Your task to perform on an android device: set an alarm Image 0: 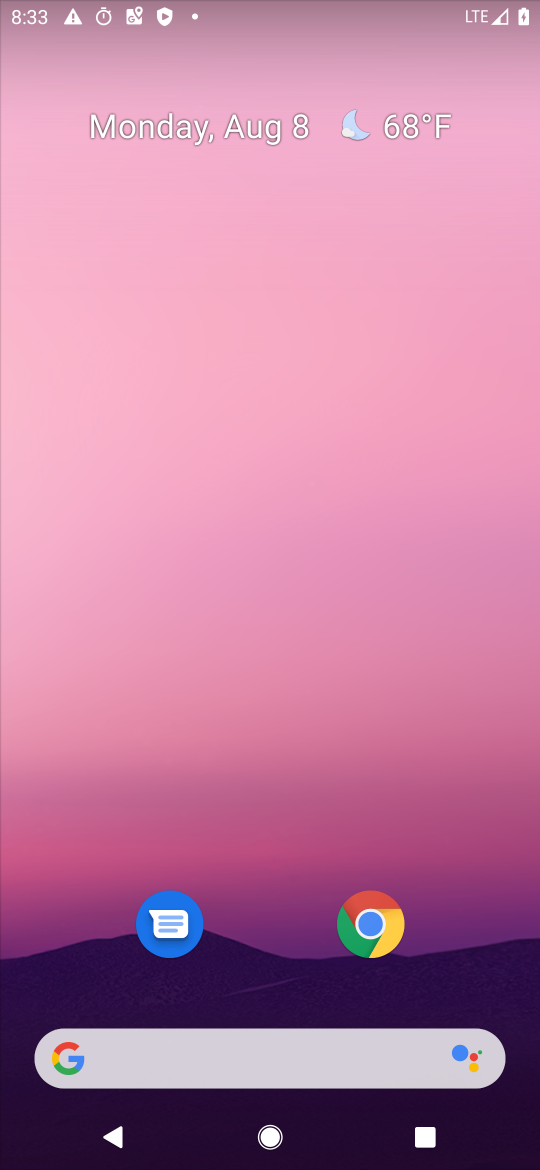
Step 0: drag from (279, 656) to (207, 99)
Your task to perform on an android device: set an alarm Image 1: 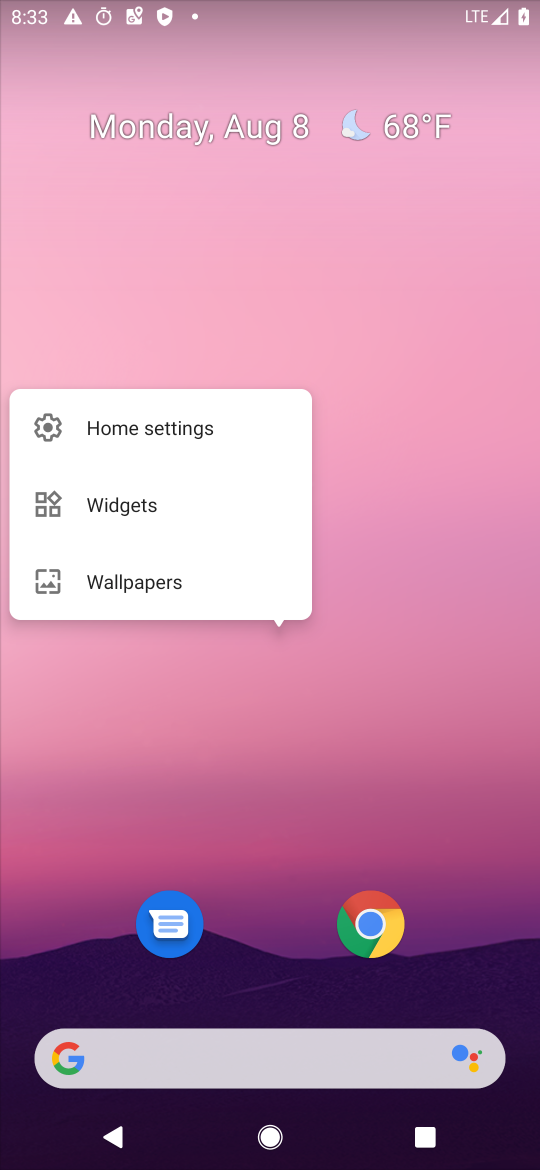
Step 1: click (282, 972)
Your task to perform on an android device: set an alarm Image 2: 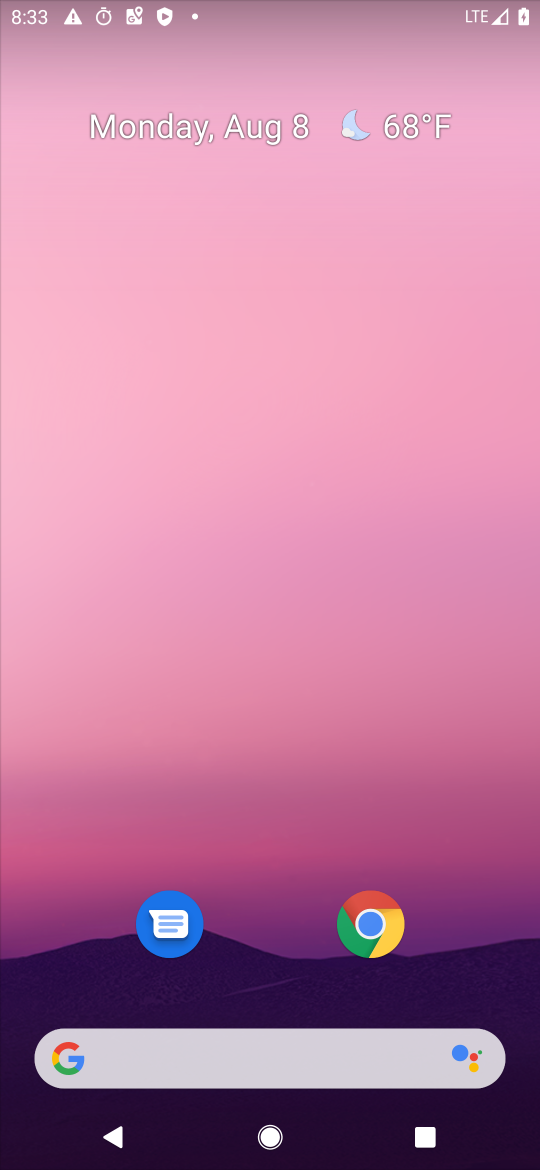
Step 2: drag from (309, 930) to (322, 257)
Your task to perform on an android device: set an alarm Image 3: 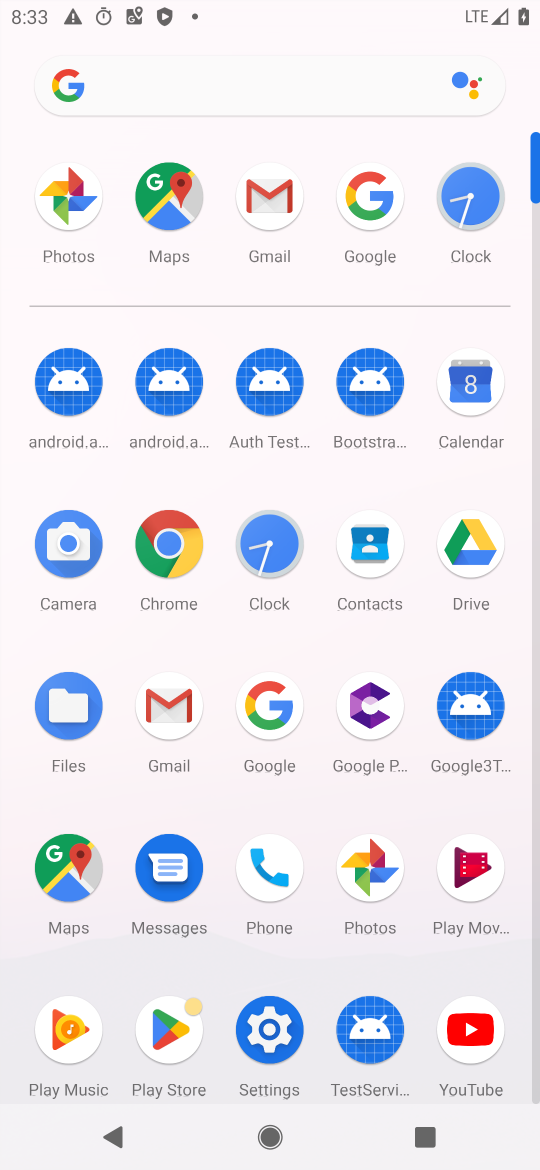
Step 3: click (265, 551)
Your task to perform on an android device: set an alarm Image 4: 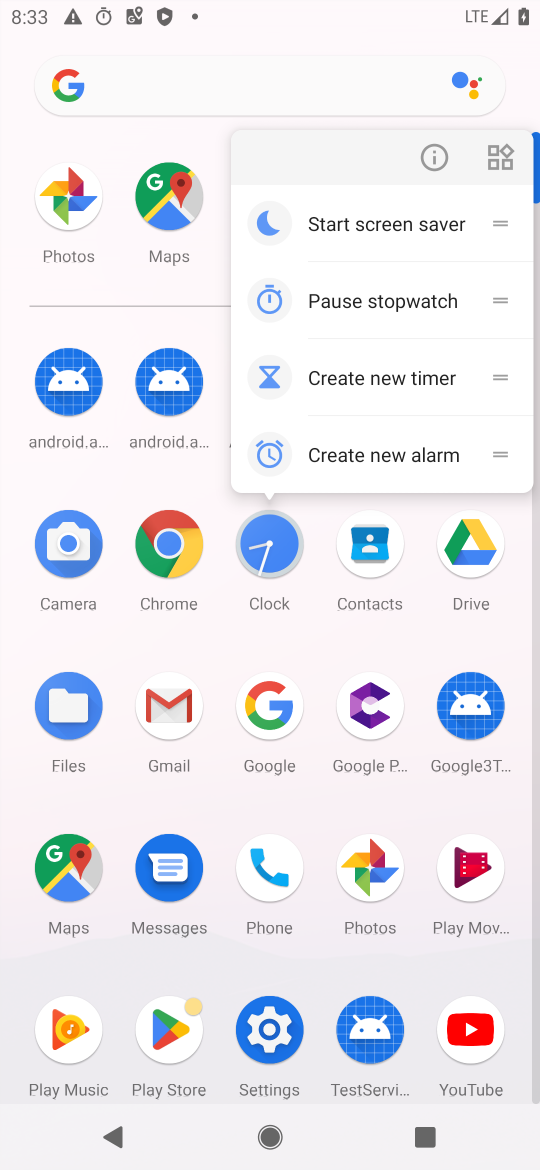
Step 4: click (435, 137)
Your task to perform on an android device: set an alarm Image 5: 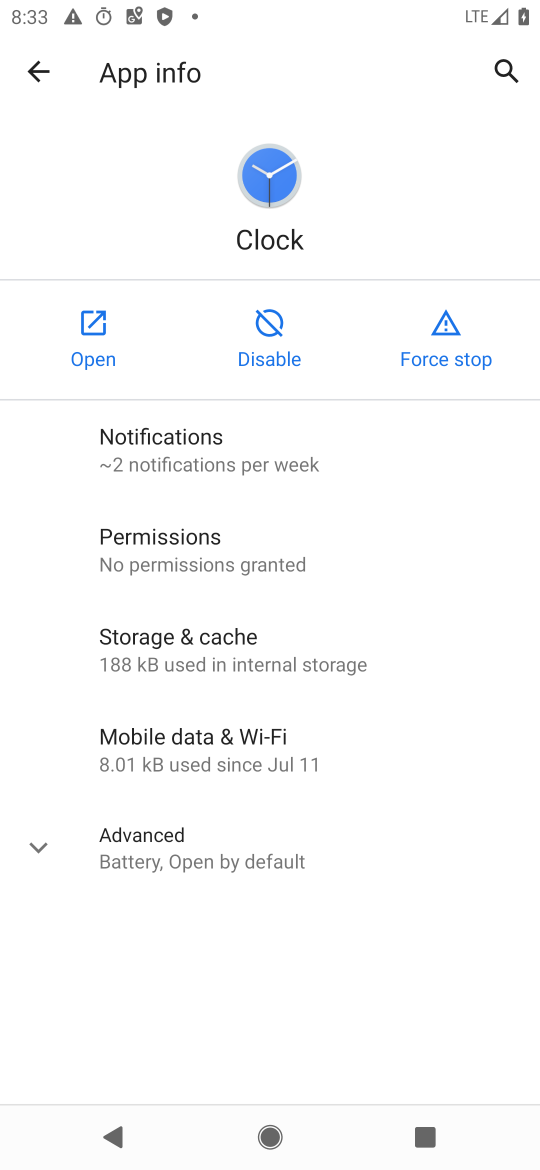
Step 5: click (109, 342)
Your task to perform on an android device: set an alarm Image 6: 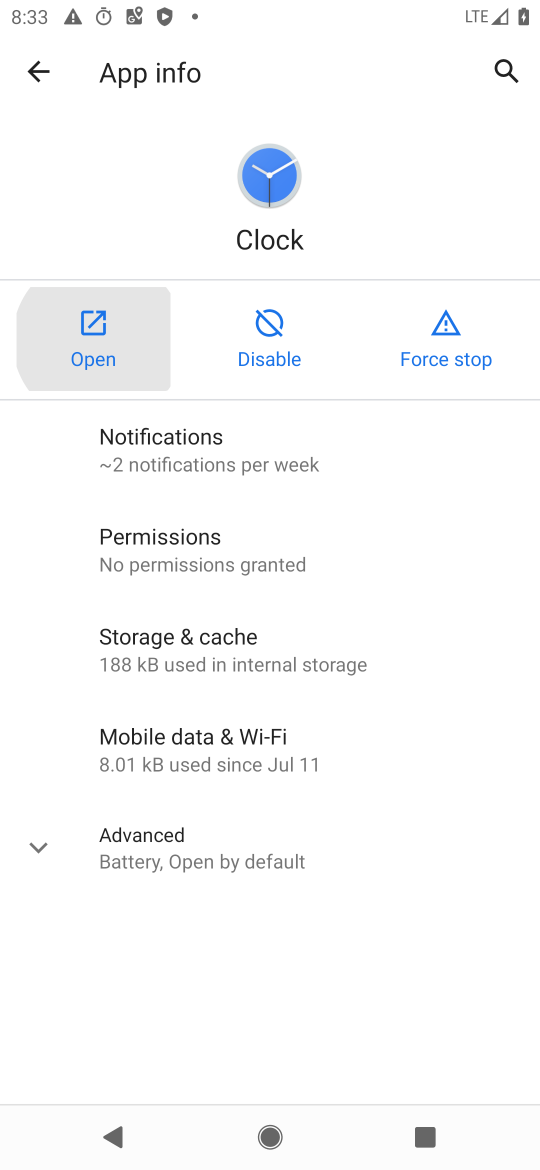
Step 6: click (109, 342)
Your task to perform on an android device: set an alarm Image 7: 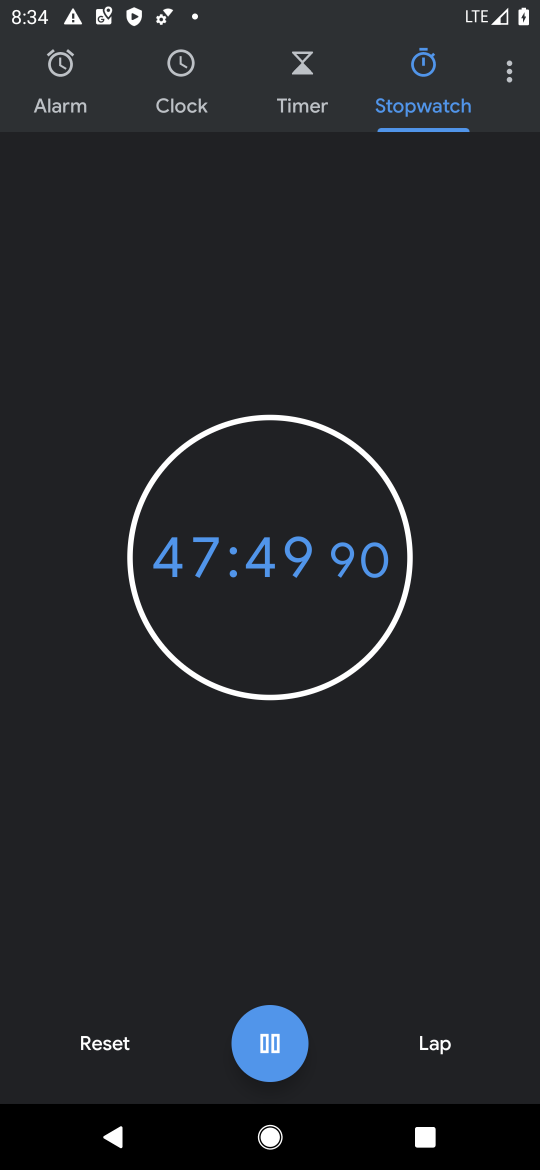
Step 7: click (53, 87)
Your task to perform on an android device: set an alarm Image 8: 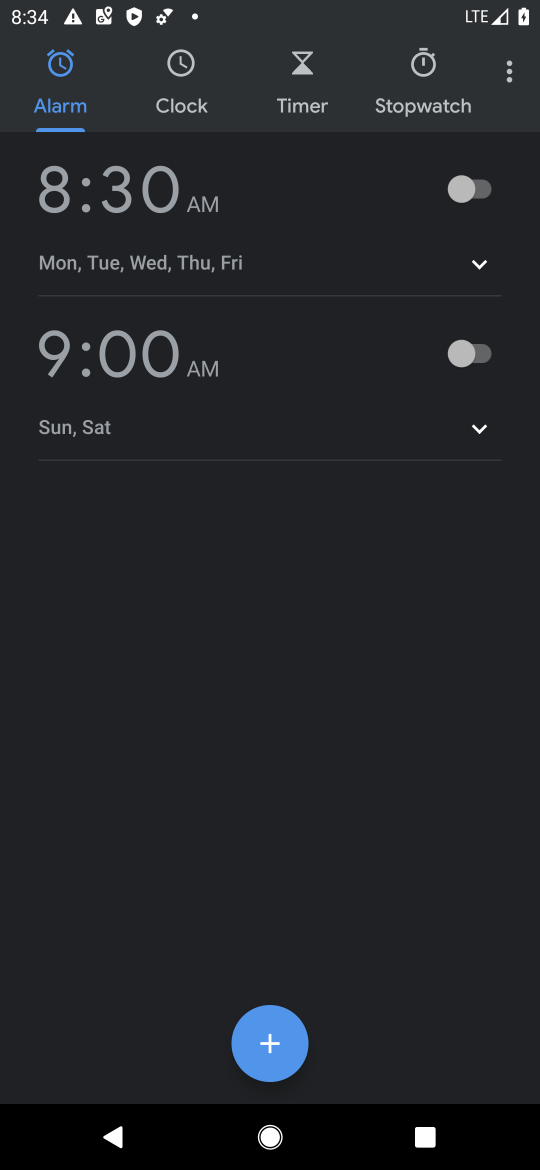
Step 8: click (461, 201)
Your task to perform on an android device: set an alarm Image 9: 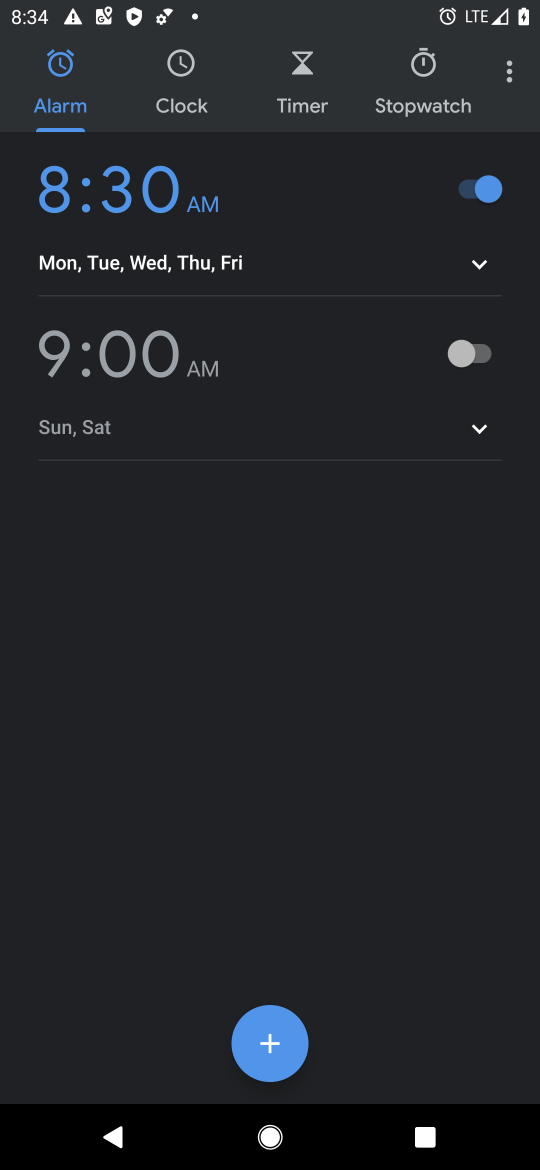
Step 9: task complete